Your task to perform on an android device: Go to accessibility settings Image 0: 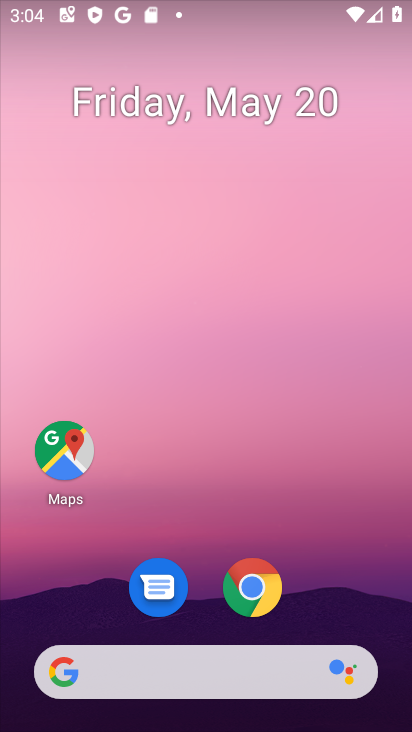
Step 0: press home button
Your task to perform on an android device: Go to accessibility settings Image 1: 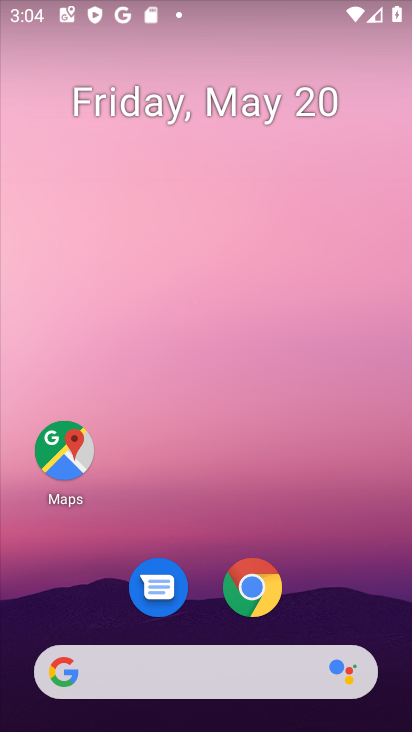
Step 1: drag from (173, 506) to (259, 162)
Your task to perform on an android device: Go to accessibility settings Image 2: 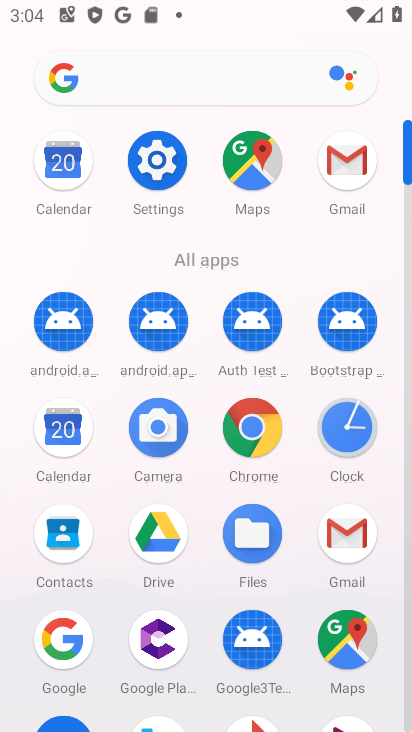
Step 2: click (169, 177)
Your task to perform on an android device: Go to accessibility settings Image 3: 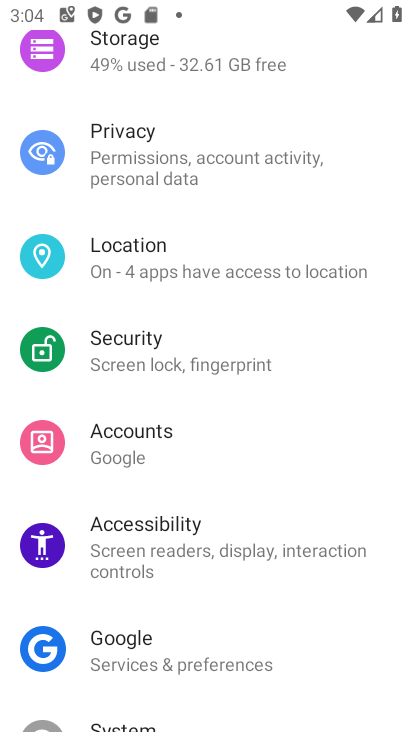
Step 3: click (169, 543)
Your task to perform on an android device: Go to accessibility settings Image 4: 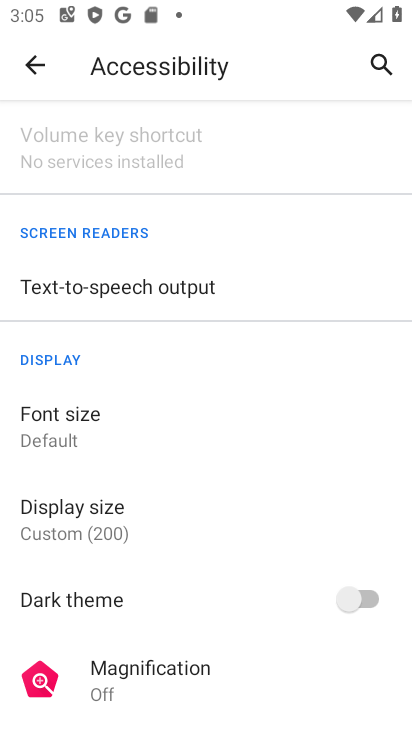
Step 4: task complete